Your task to perform on an android device: Go to Wikipedia Image 0: 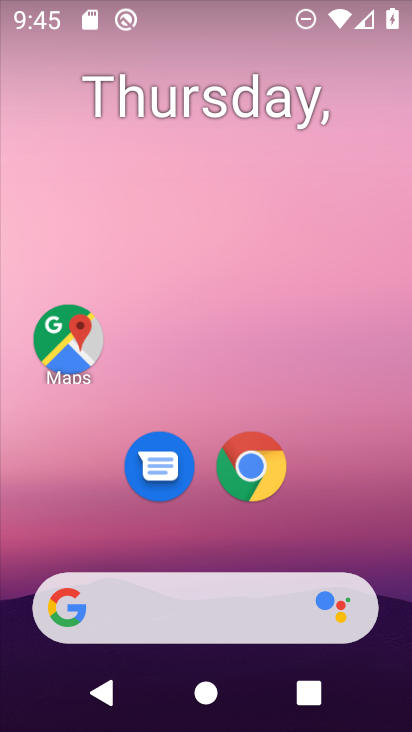
Step 0: drag from (168, 570) to (166, 95)
Your task to perform on an android device: Go to Wikipedia Image 1: 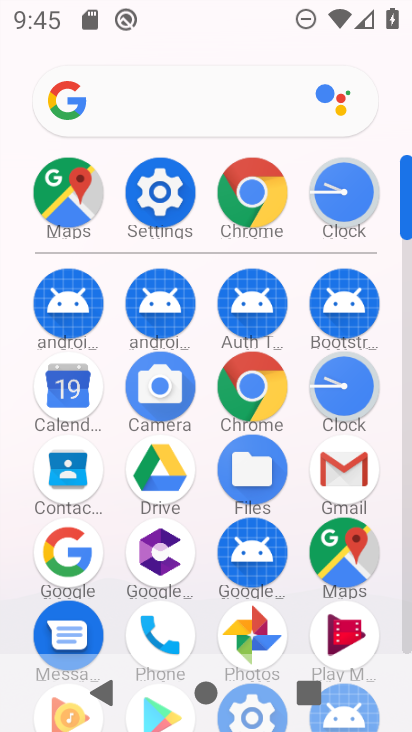
Step 1: click (229, 394)
Your task to perform on an android device: Go to Wikipedia Image 2: 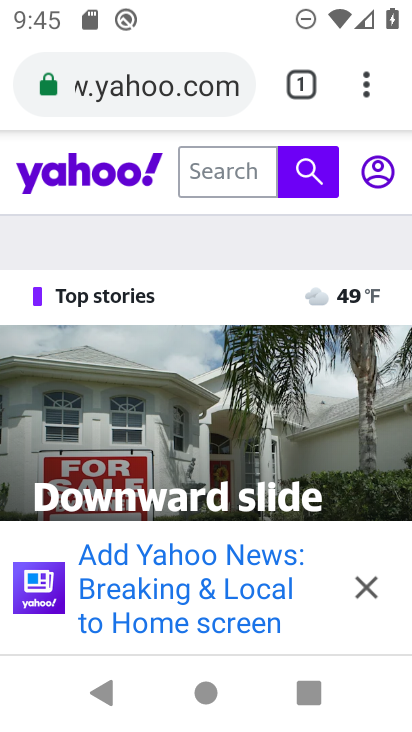
Step 2: drag from (365, 77) to (191, 162)
Your task to perform on an android device: Go to Wikipedia Image 3: 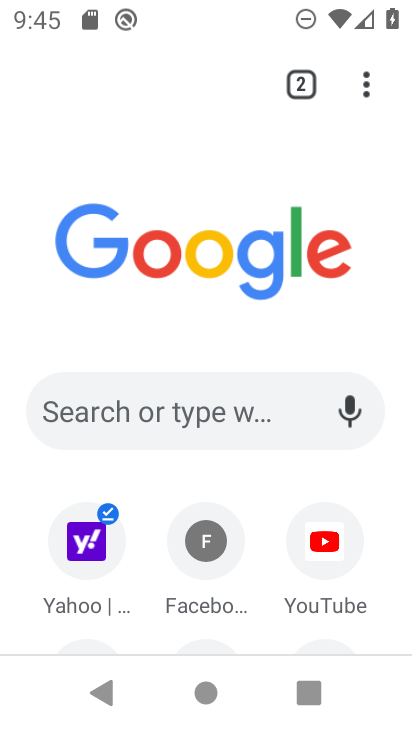
Step 3: drag from (253, 589) to (269, 243)
Your task to perform on an android device: Go to Wikipedia Image 4: 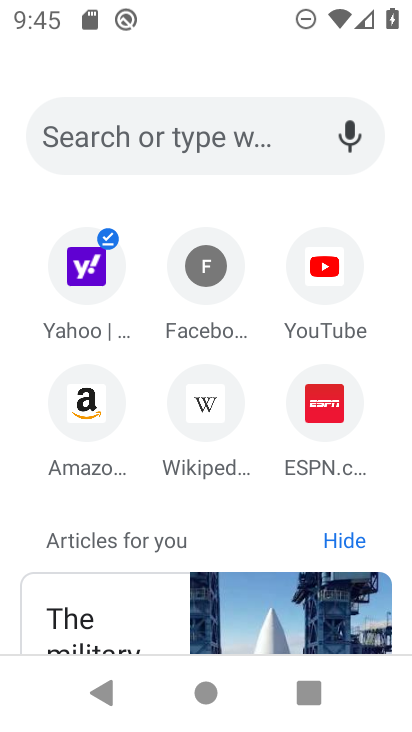
Step 4: click (200, 404)
Your task to perform on an android device: Go to Wikipedia Image 5: 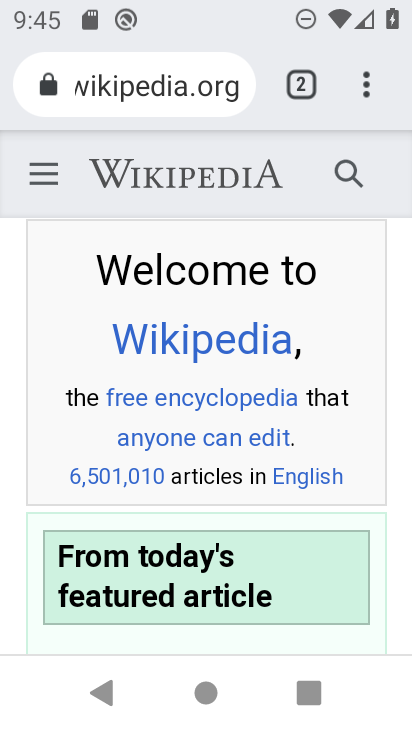
Step 5: task complete